Your task to perform on an android device: Open internet settings Image 0: 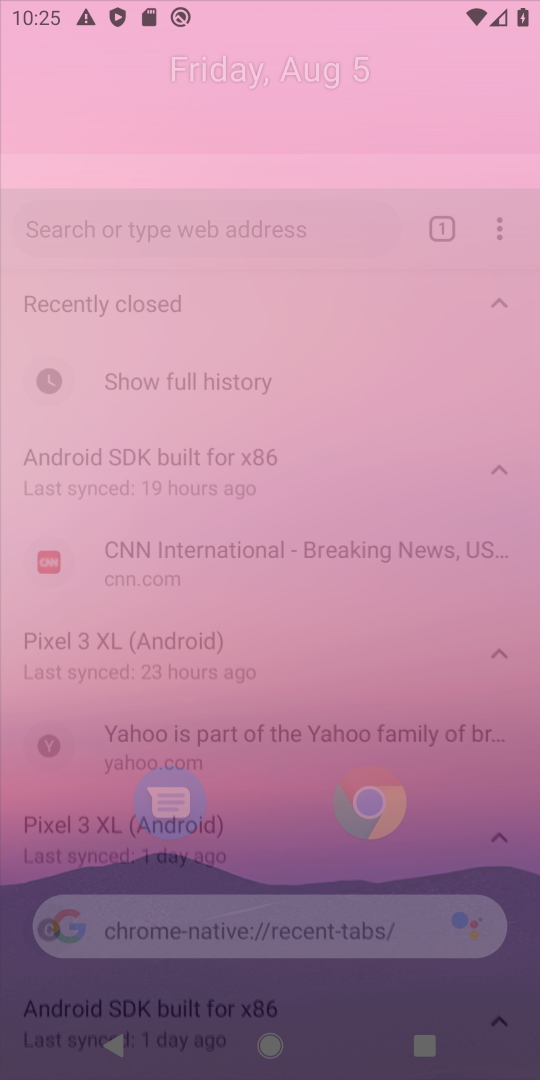
Step 0: press home button
Your task to perform on an android device: Open internet settings Image 1: 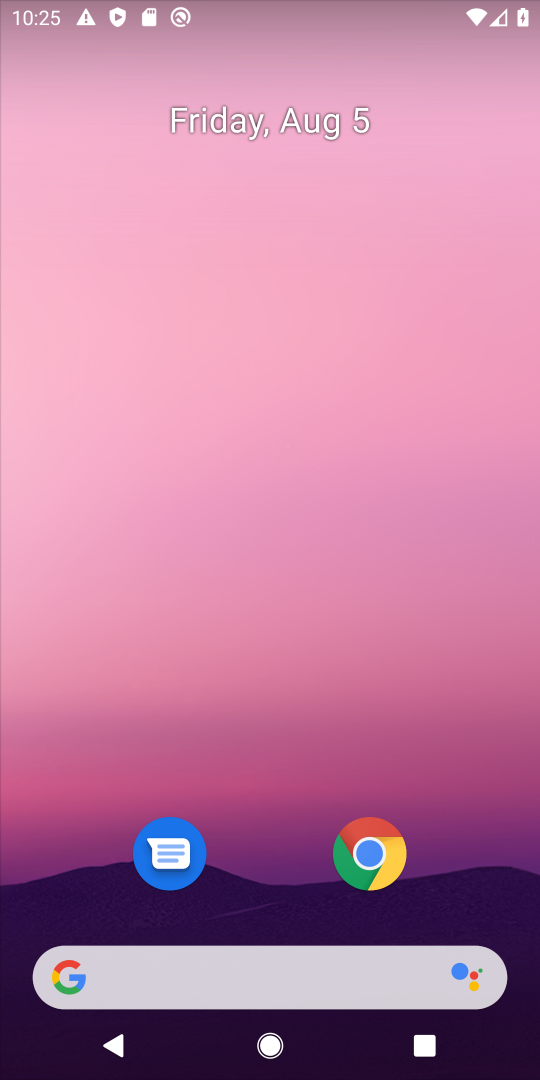
Step 1: drag from (256, 851) to (110, 433)
Your task to perform on an android device: Open internet settings Image 2: 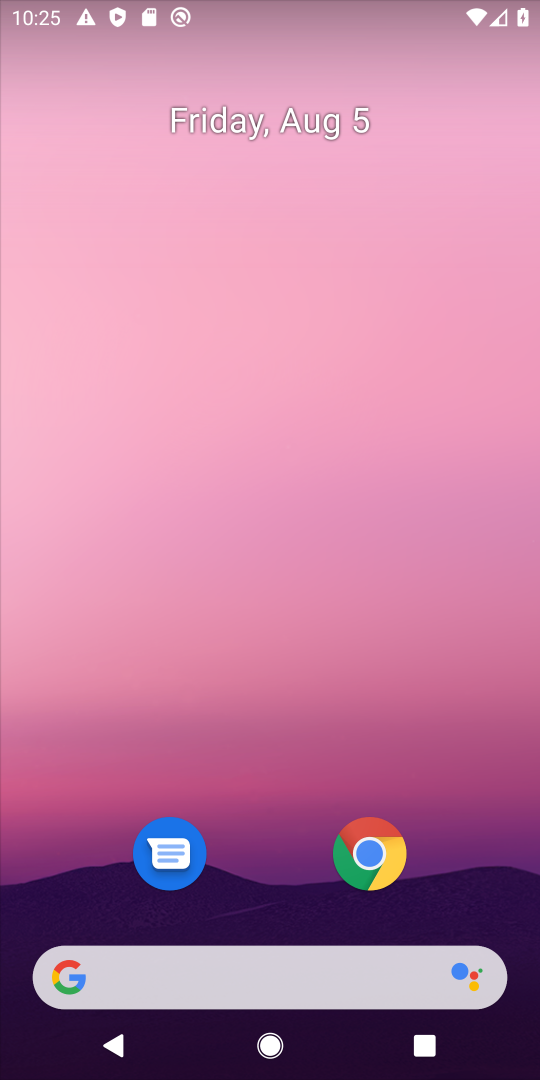
Step 2: drag from (259, 868) to (280, 31)
Your task to perform on an android device: Open internet settings Image 3: 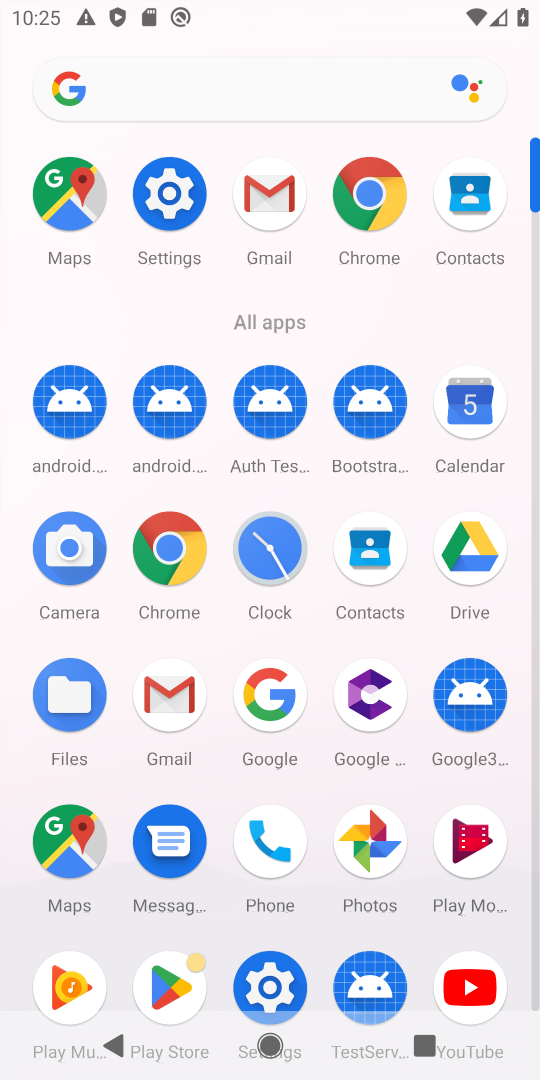
Step 3: click (162, 201)
Your task to perform on an android device: Open internet settings Image 4: 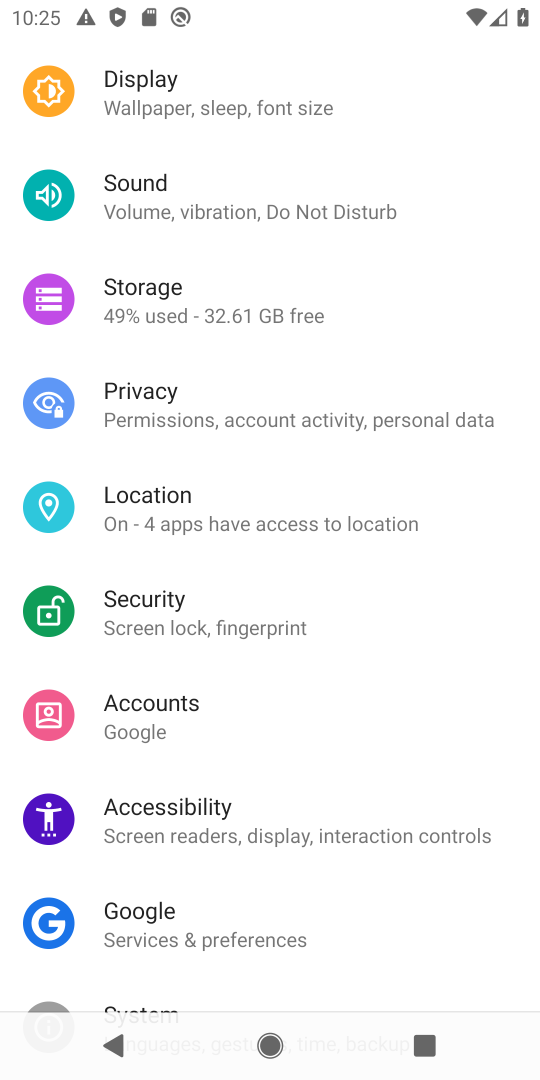
Step 4: drag from (220, 139) to (272, 662)
Your task to perform on an android device: Open internet settings Image 5: 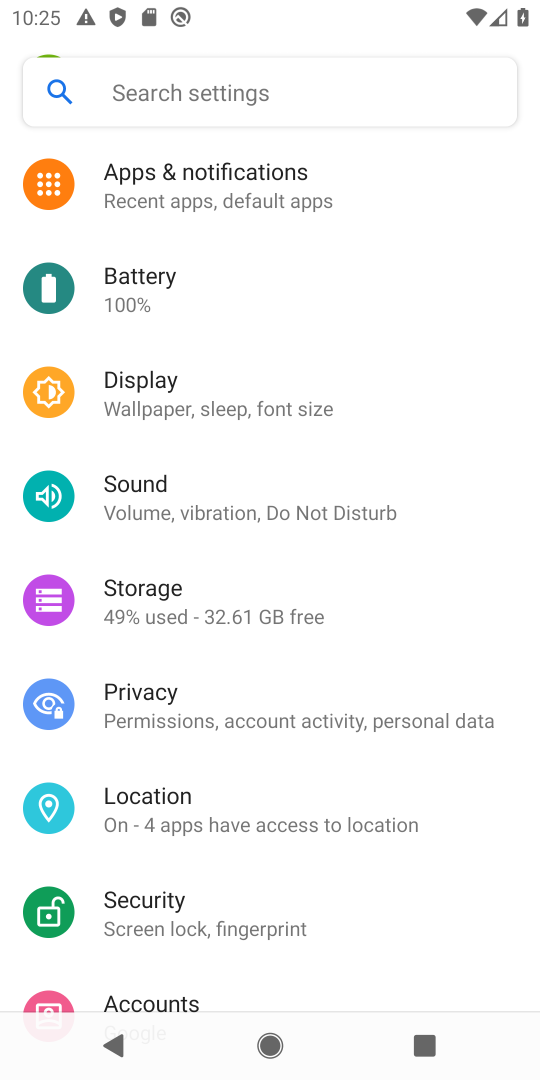
Step 5: drag from (328, 245) to (358, 993)
Your task to perform on an android device: Open internet settings Image 6: 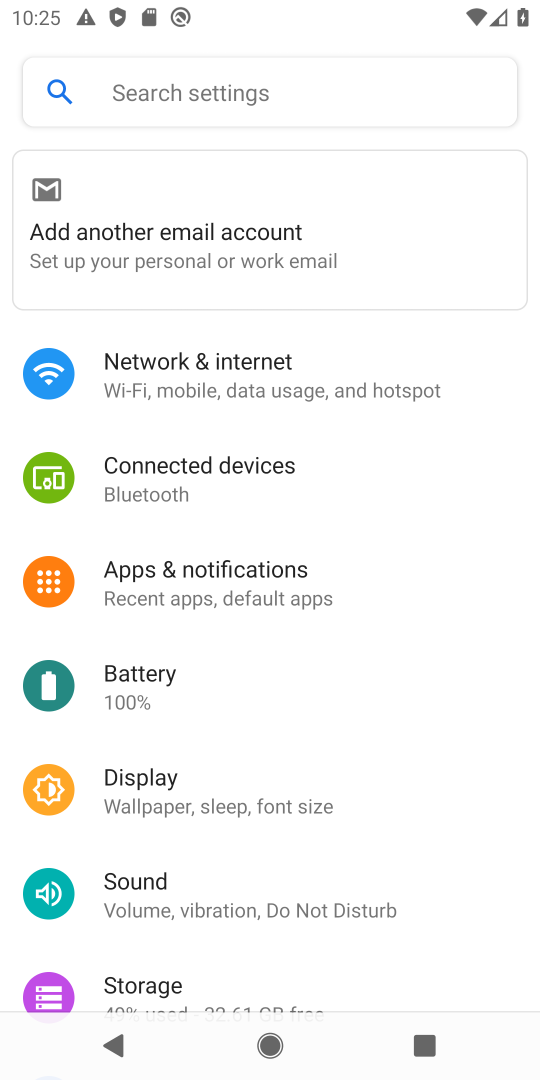
Step 6: click (325, 377)
Your task to perform on an android device: Open internet settings Image 7: 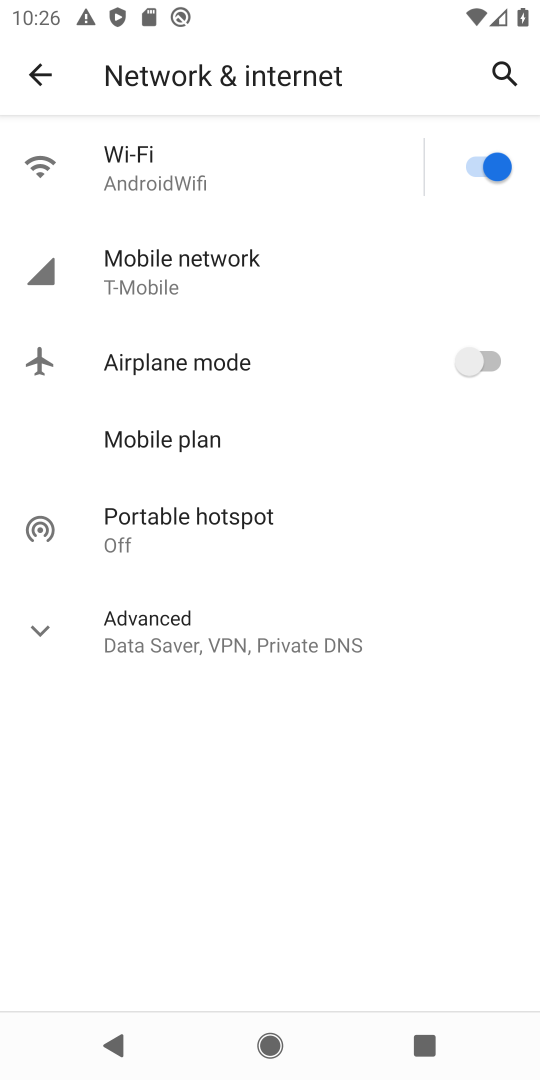
Step 7: click (285, 269)
Your task to perform on an android device: Open internet settings Image 8: 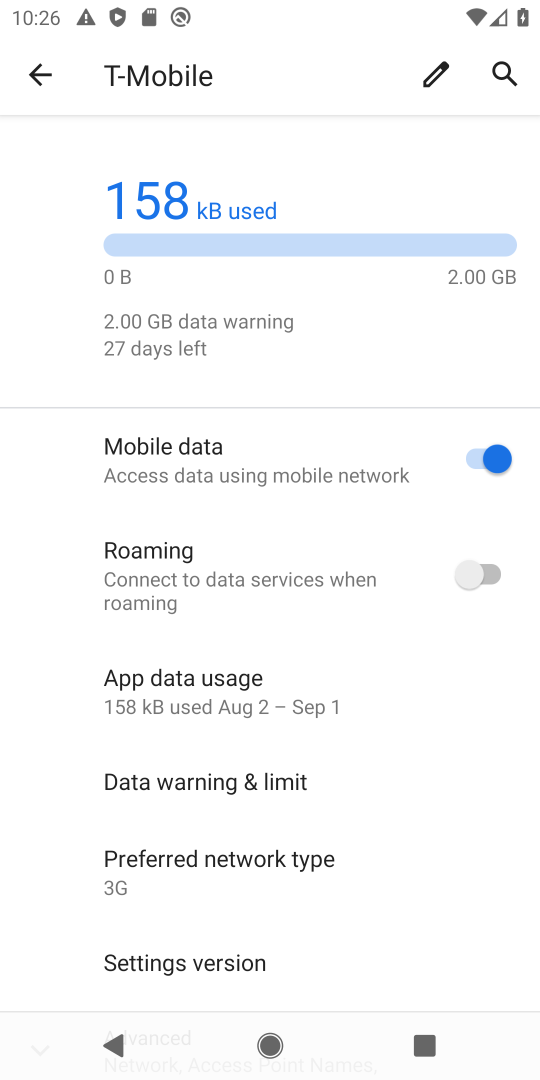
Step 8: task complete